Your task to perform on an android device: change your default location settings in chrome Image 0: 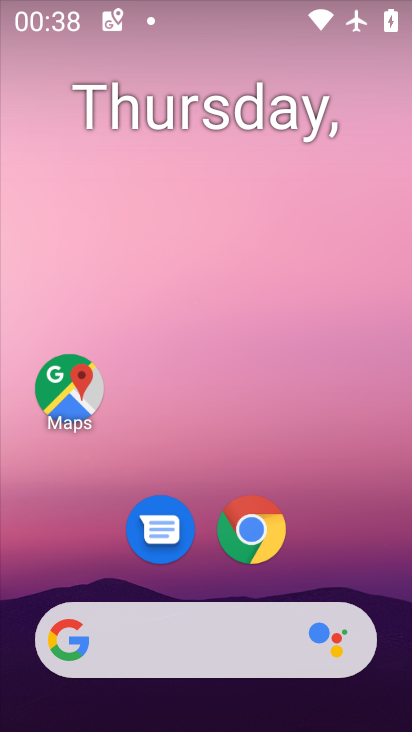
Step 0: click (248, 525)
Your task to perform on an android device: change your default location settings in chrome Image 1: 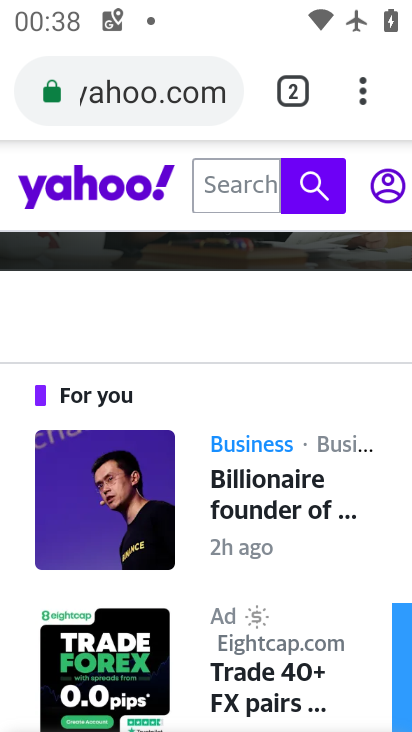
Step 1: click (362, 97)
Your task to perform on an android device: change your default location settings in chrome Image 2: 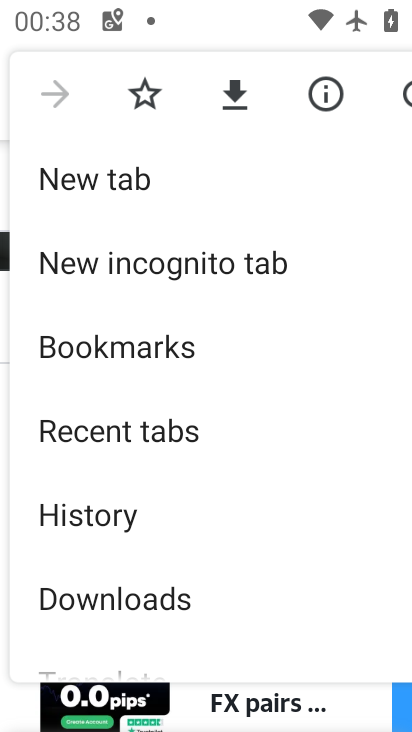
Step 2: drag from (282, 564) to (292, 129)
Your task to perform on an android device: change your default location settings in chrome Image 3: 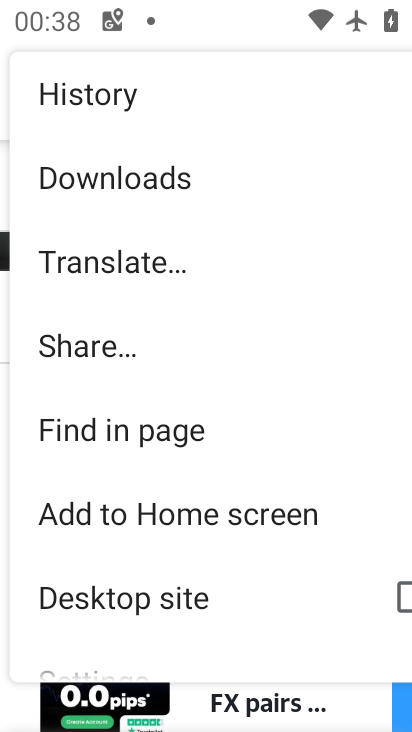
Step 3: drag from (272, 580) to (291, 157)
Your task to perform on an android device: change your default location settings in chrome Image 4: 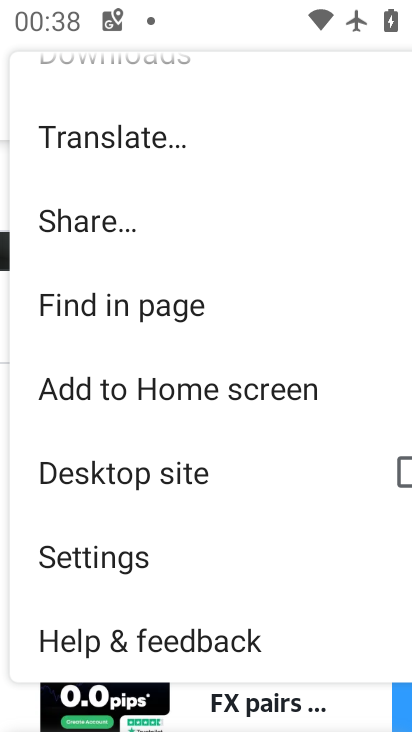
Step 4: click (110, 552)
Your task to perform on an android device: change your default location settings in chrome Image 5: 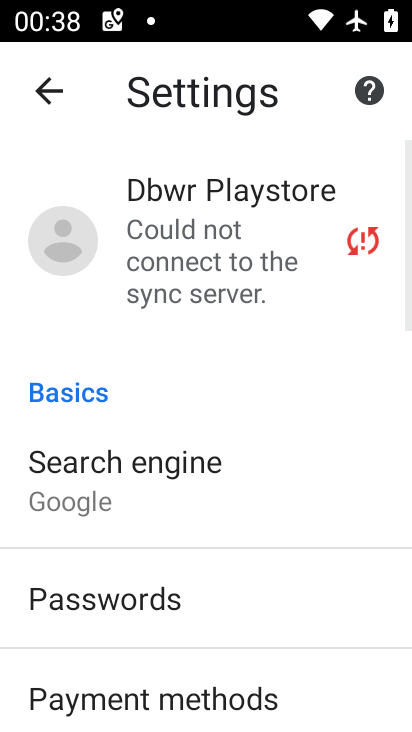
Step 5: drag from (273, 653) to (261, 215)
Your task to perform on an android device: change your default location settings in chrome Image 6: 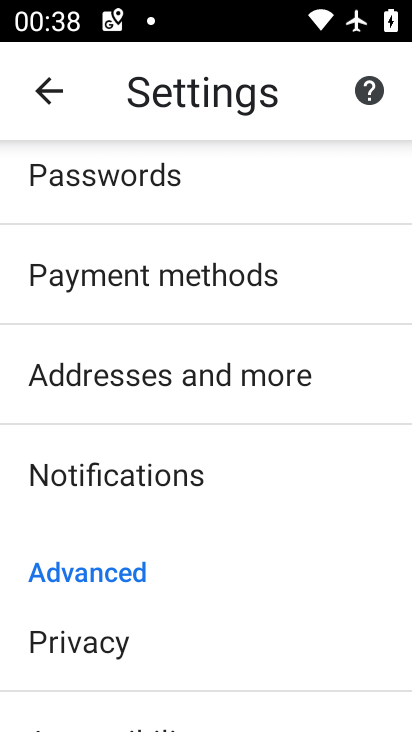
Step 6: drag from (261, 568) to (338, 138)
Your task to perform on an android device: change your default location settings in chrome Image 7: 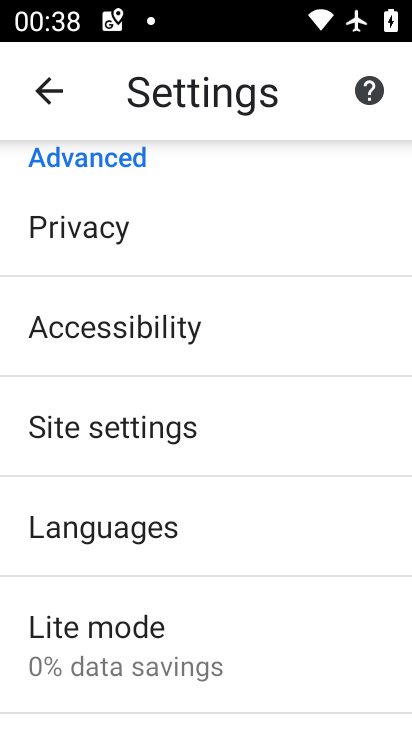
Step 7: click (95, 448)
Your task to perform on an android device: change your default location settings in chrome Image 8: 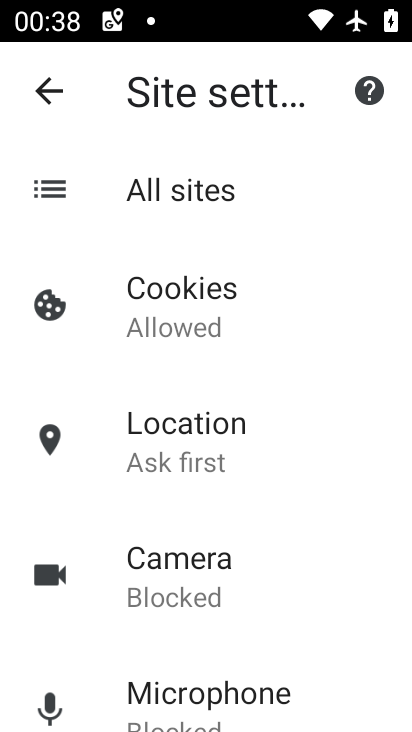
Step 8: drag from (298, 679) to (295, 242)
Your task to perform on an android device: change your default location settings in chrome Image 9: 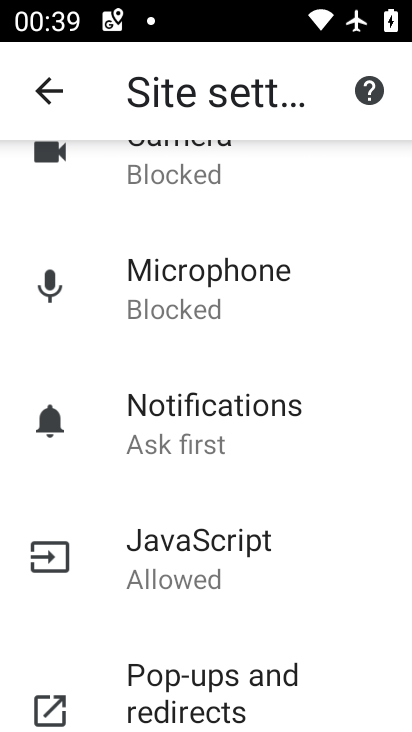
Step 9: drag from (376, 353) to (320, 623)
Your task to perform on an android device: change your default location settings in chrome Image 10: 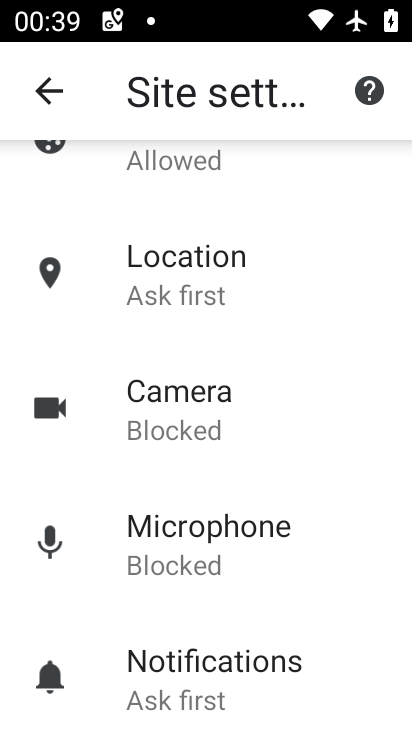
Step 10: click (160, 272)
Your task to perform on an android device: change your default location settings in chrome Image 11: 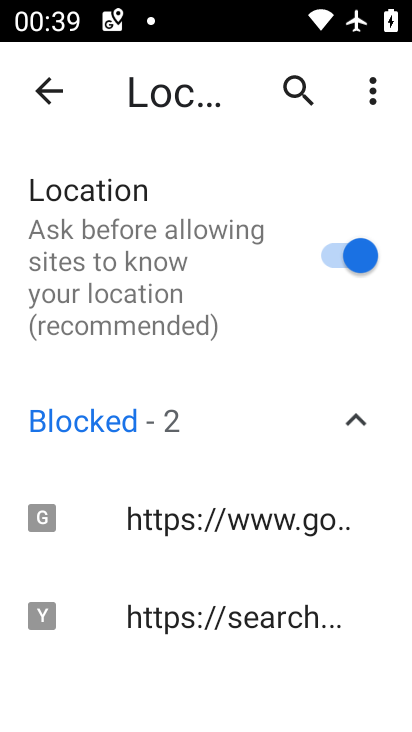
Step 11: click (331, 252)
Your task to perform on an android device: change your default location settings in chrome Image 12: 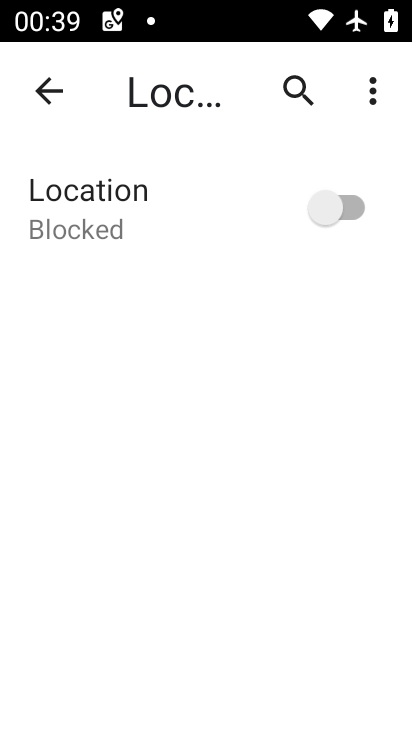
Step 12: task complete